Your task to perform on an android device: Go to Google Image 0: 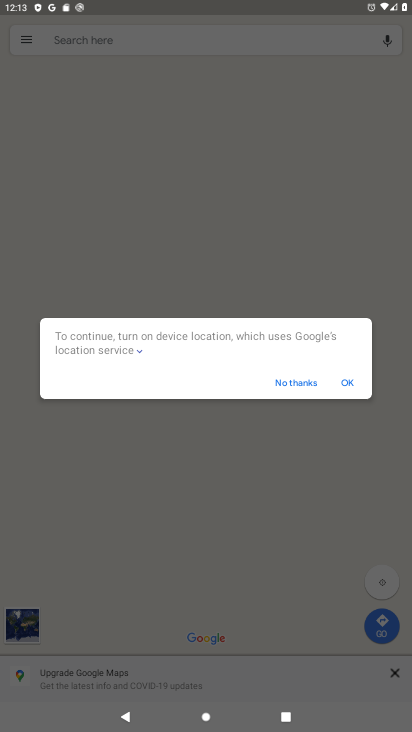
Step 0: press home button
Your task to perform on an android device: Go to Google Image 1: 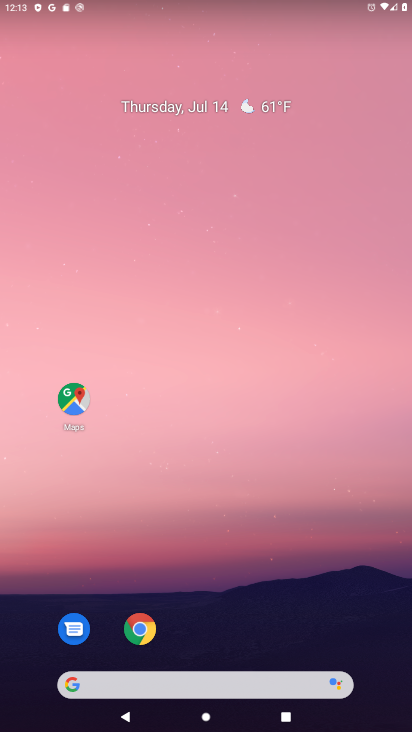
Step 1: drag from (182, 677) to (288, 261)
Your task to perform on an android device: Go to Google Image 2: 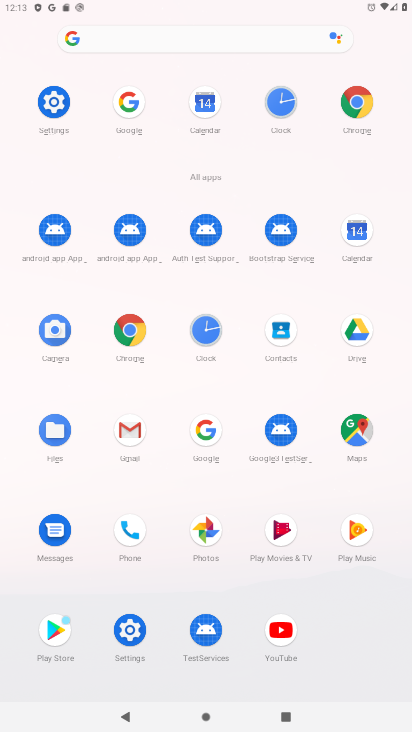
Step 2: click (125, 99)
Your task to perform on an android device: Go to Google Image 3: 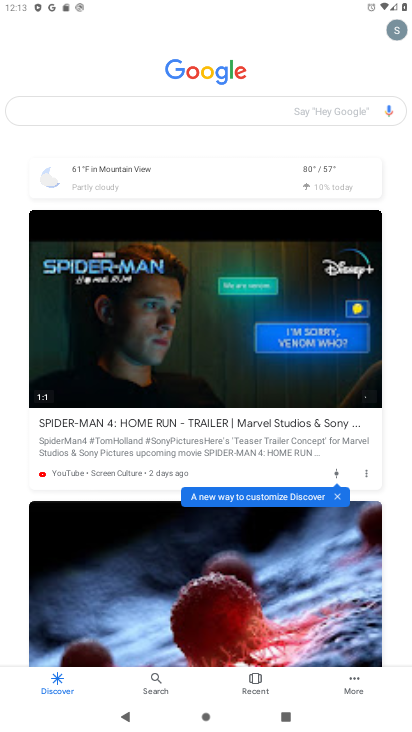
Step 3: task complete